Your task to perform on an android device: find snoozed emails in the gmail app Image 0: 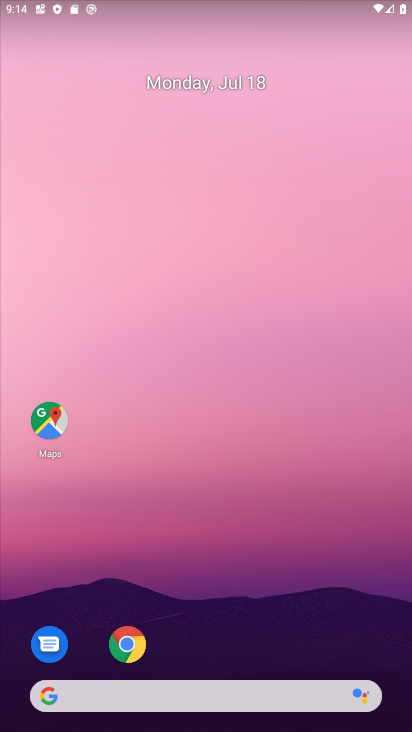
Step 0: drag from (221, 666) to (120, 51)
Your task to perform on an android device: find snoozed emails in the gmail app Image 1: 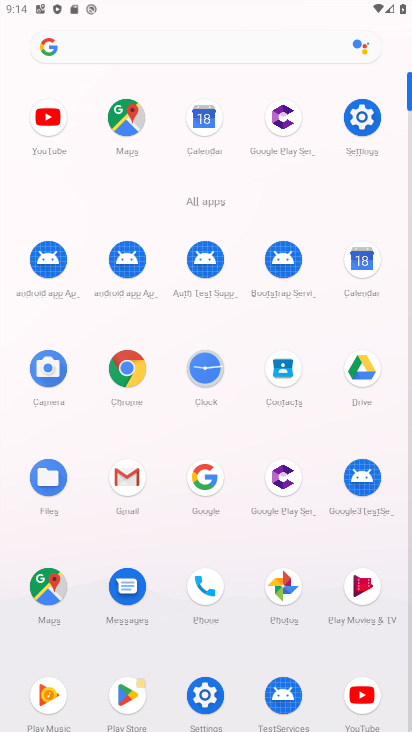
Step 1: click (121, 469)
Your task to perform on an android device: find snoozed emails in the gmail app Image 2: 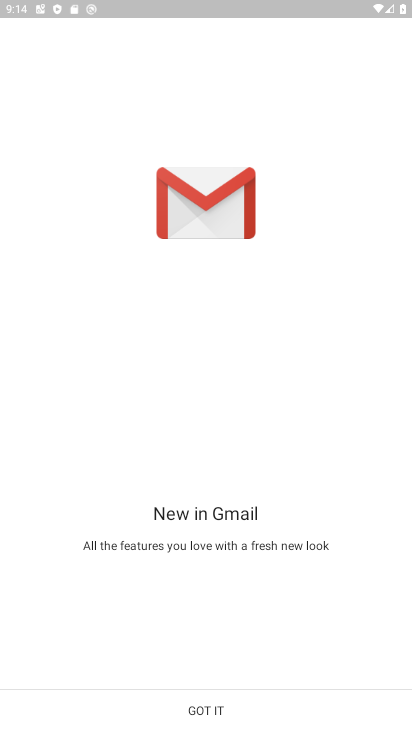
Step 2: click (204, 707)
Your task to perform on an android device: find snoozed emails in the gmail app Image 3: 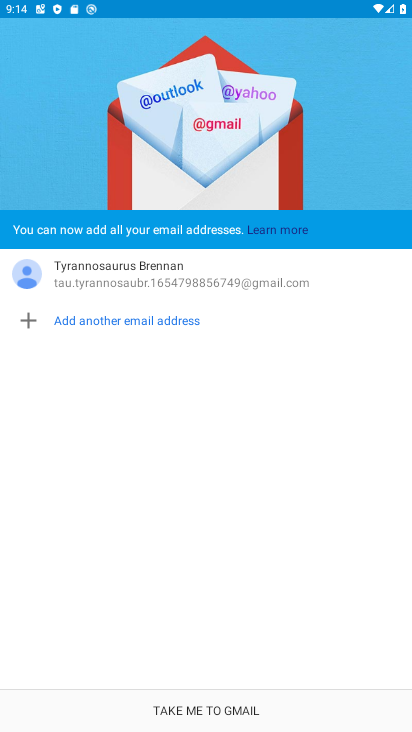
Step 3: click (204, 707)
Your task to perform on an android device: find snoozed emails in the gmail app Image 4: 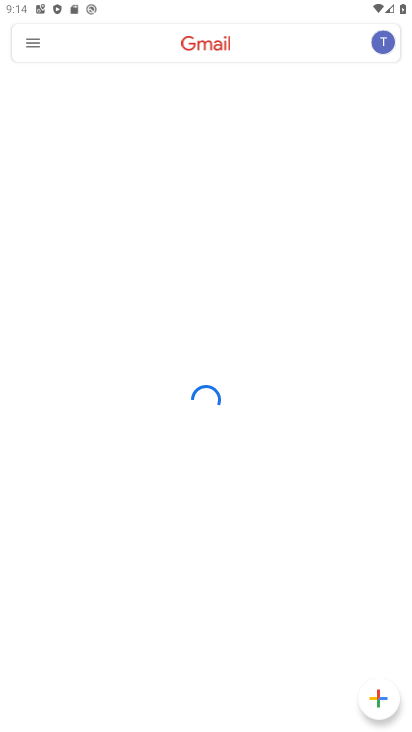
Step 4: click (33, 38)
Your task to perform on an android device: find snoozed emails in the gmail app Image 5: 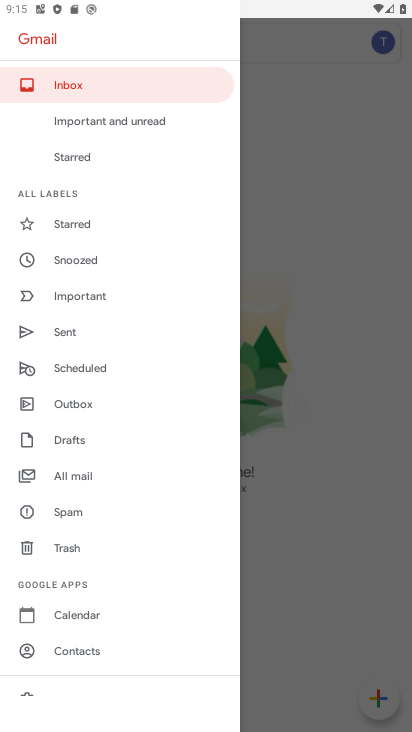
Step 5: click (69, 271)
Your task to perform on an android device: find snoozed emails in the gmail app Image 6: 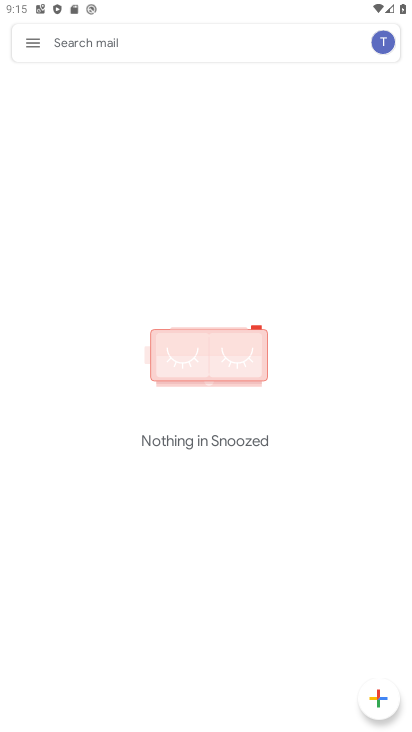
Step 6: task complete